Your task to perform on an android device: turn on the 12-hour format for clock Image 0: 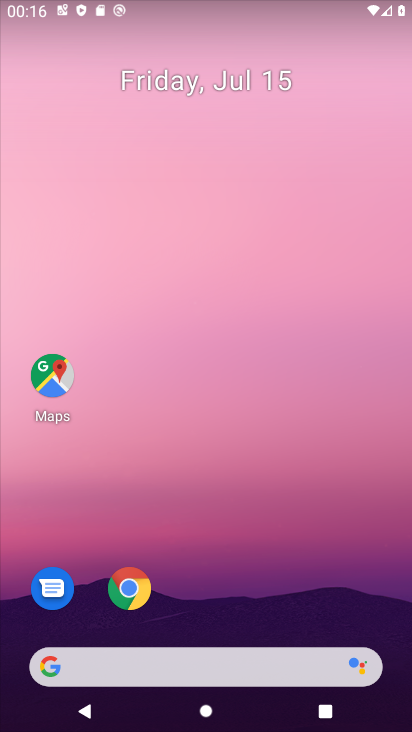
Step 0: drag from (242, 653) to (268, 139)
Your task to perform on an android device: turn on the 12-hour format for clock Image 1: 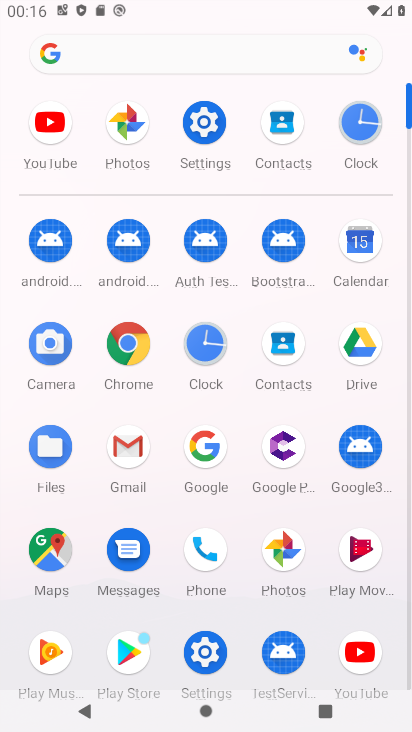
Step 1: click (201, 347)
Your task to perform on an android device: turn on the 12-hour format for clock Image 2: 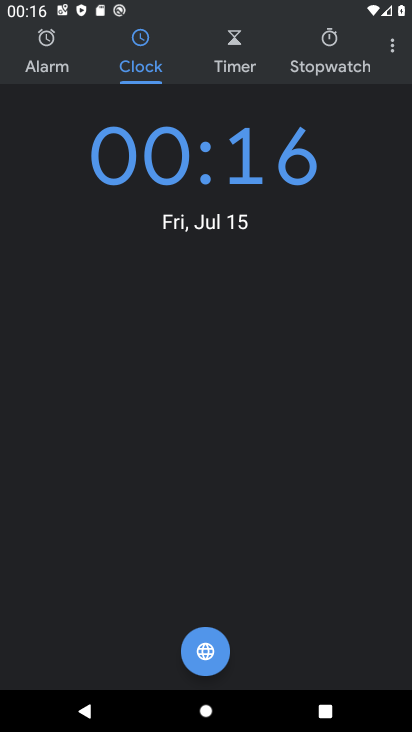
Step 2: click (395, 49)
Your task to perform on an android device: turn on the 12-hour format for clock Image 3: 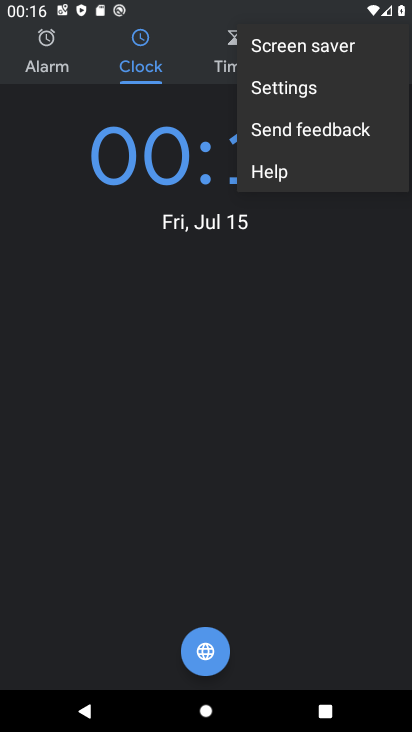
Step 3: click (319, 86)
Your task to perform on an android device: turn on the 12-hour format for clock Image 4: 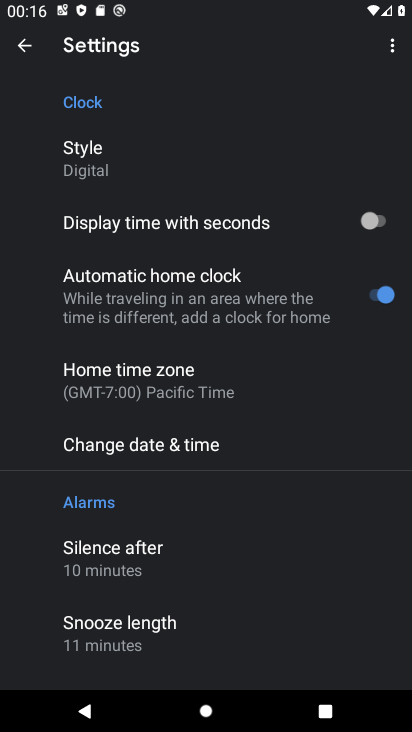
Step 4: click (168, 459)
Your task to perform on an android device: turn on the 12-hour format for clock Image 5: 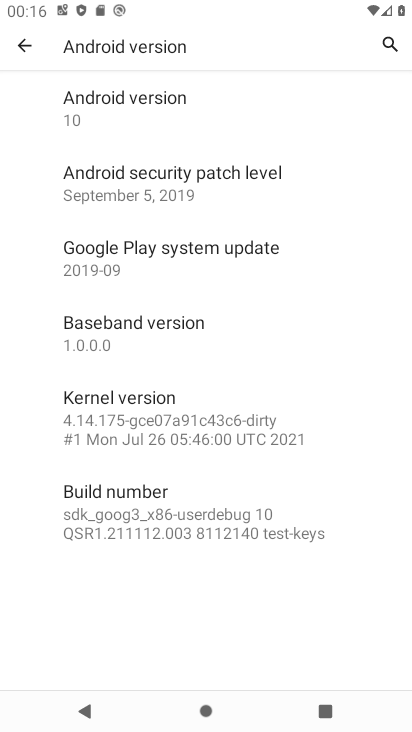
Step 5: click (28, 37)
Your task to perform on an android device: turn on the 12-hour format for clock Image 6: 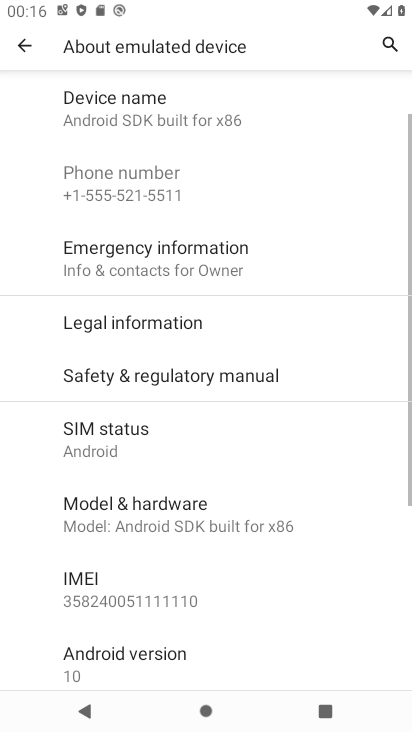
Step 6: click (28, 37)
Your task to perform on an android device: turn on the 12-hour format for clock Image 7: 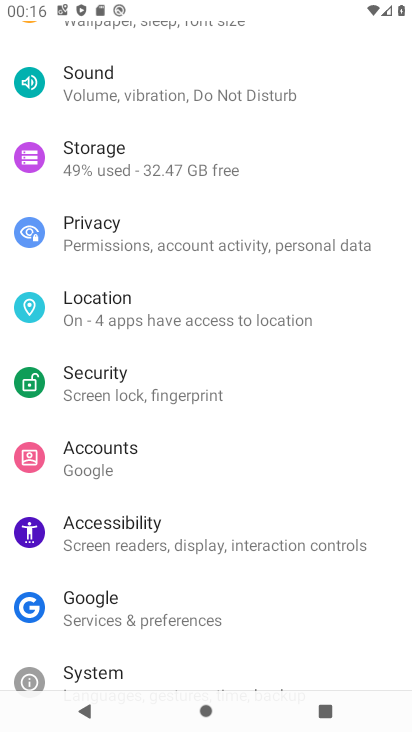
Step 7: press back button
Your task to perform on an android device: turn on the 12-hour format for clock Image 8: 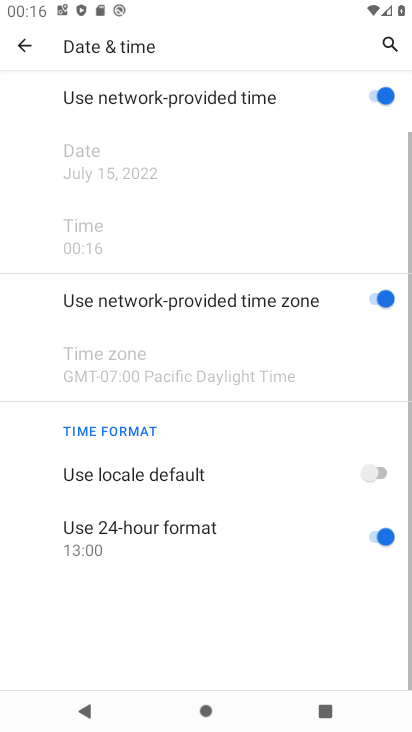
Step 8: press back button
Your task to perform on an android device: turn on the 12-hour format for clock Image 9: 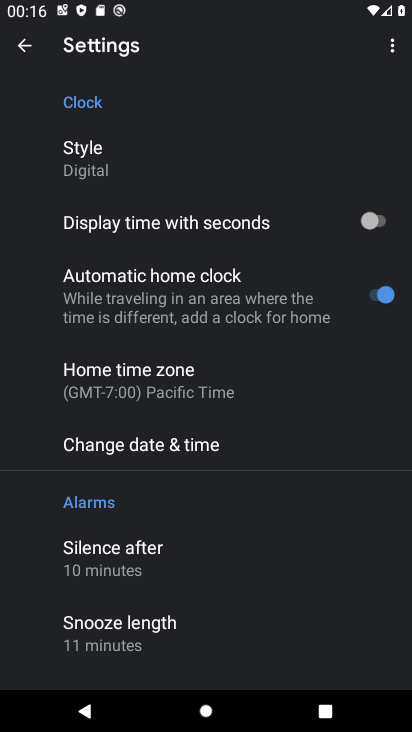
Step 9: click (199, 453)
Your task to perform on an android device: turn on the 12-hour format for clock Image 10: 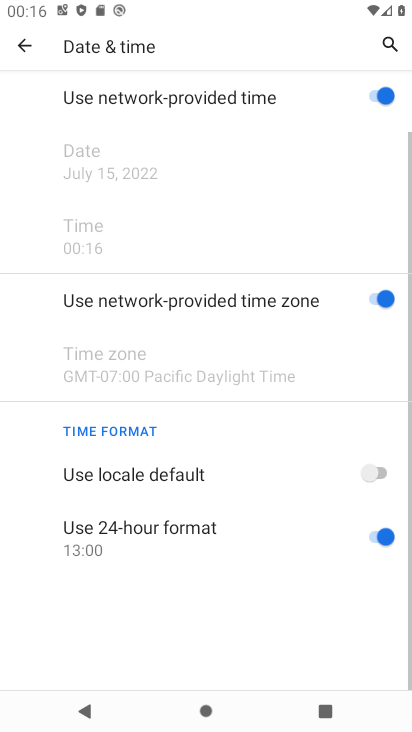
Step 10: task complete